Your task to perform on an android device: open a bookmark in the chrome app Image 0: 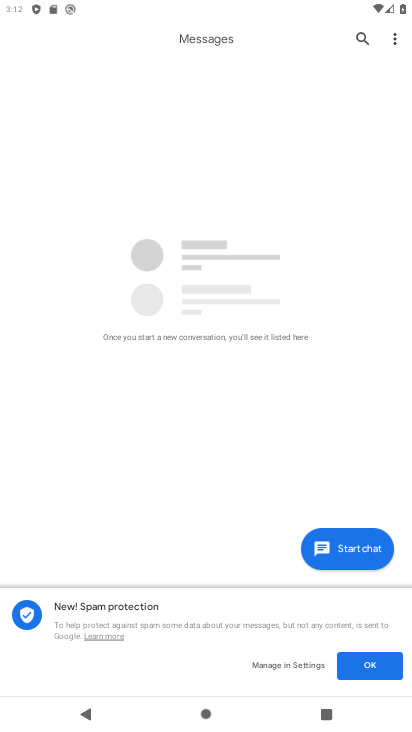
Step 0: press home button
Your task to perform on an android device: open a bookmark in the chrome app Image 1: 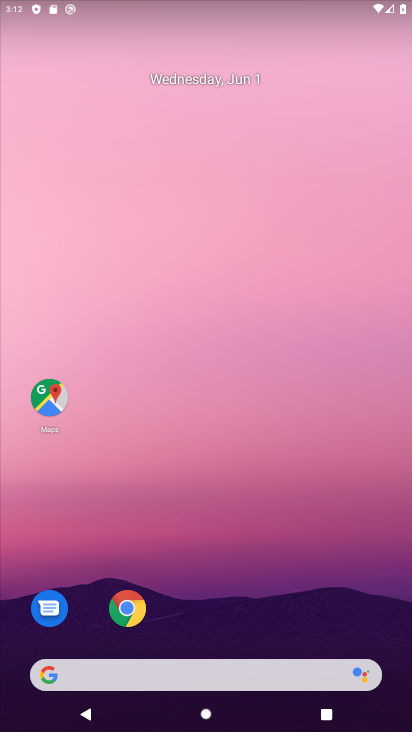
Step 1: click (128, 626)
Your task to perform on an android device: open a bookmark in the chrome app Image 2: 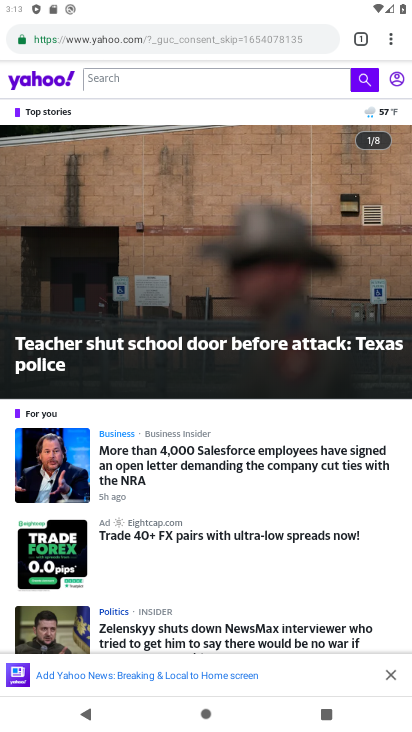
Step 2: task complete